Your task to perform on an android device: Show me the alarms in the clock app Image 0: 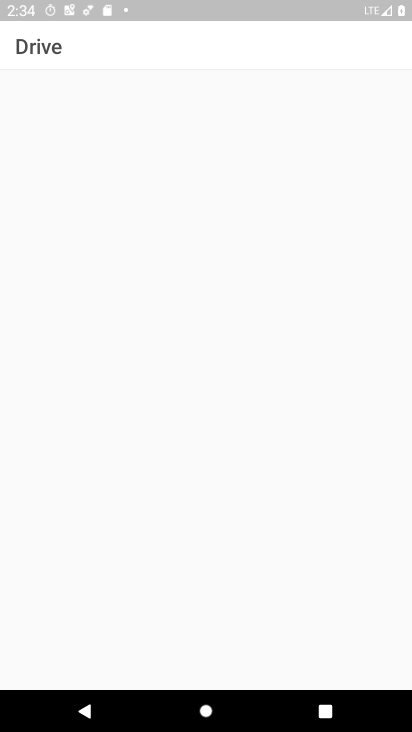
Step 0: press home button
Your task to perform on an android device: Show me the alarms in the clock app Image 1: 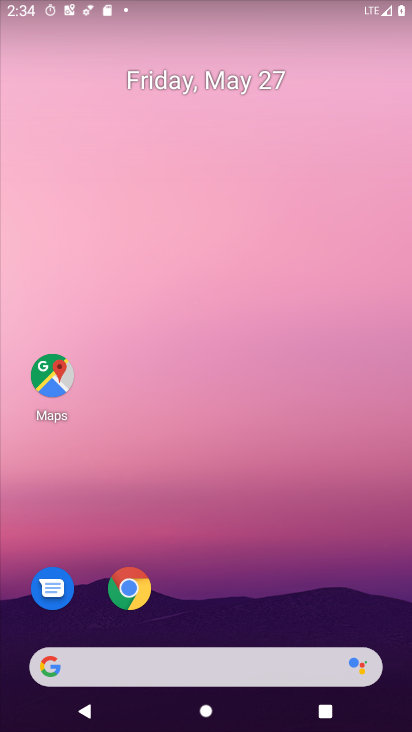
Step 1: drag from (232, 570) to (216, 0)
Your task to perform on an android device: Show me the alarms in the clock app Image 2: 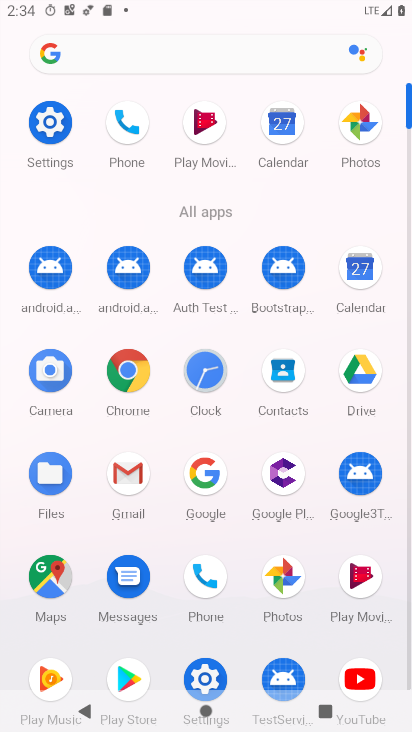
Step 2: click (204, 374)
Your task to perform on an android device: Show me the alarms in the clock app Image 3: 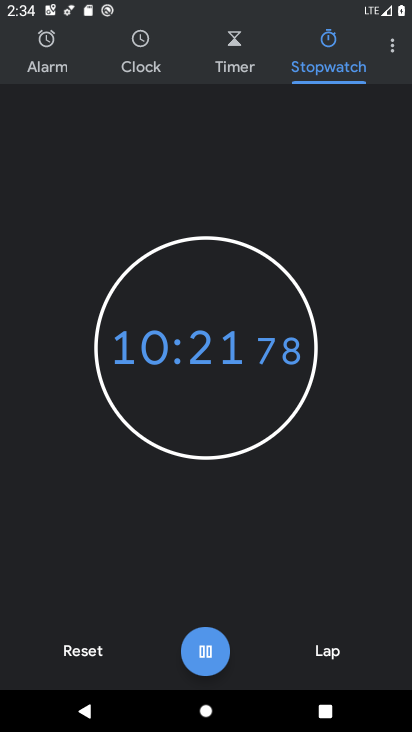
Step 3: click (40, 62)
Your task to perform on an android device: Show me the alarms in the clock app Image 4: 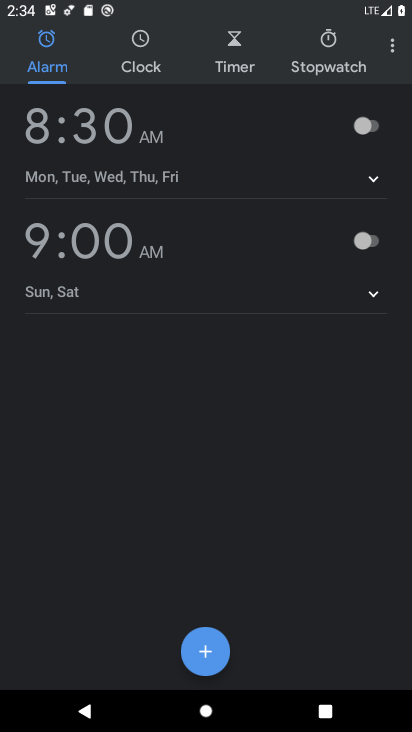
Step 4: task complete